Your task to perform on an android device: refresh tabs in the chrome app Image 0: 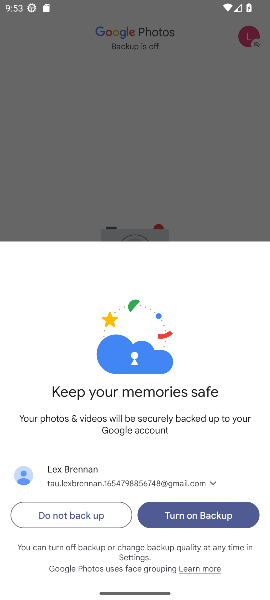
Step 0: press home button
Your task to perform on an android device: refresh tabs in the chrome app Image 1: 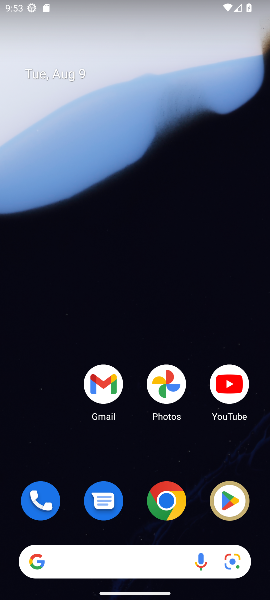
Step 1: click (160, 500)
Your task to perform on an android device: refresh tabs in the chrome app Image 2: 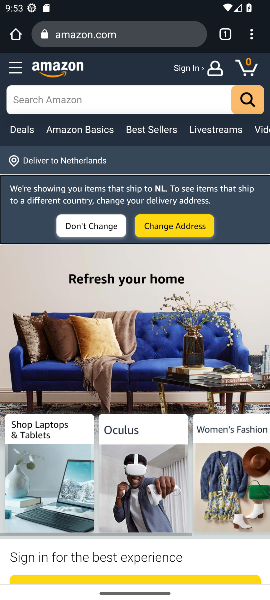
Step 2: click (252, 35)
Your task to perform on an android device: refresh tabs in the chrome app Image 3: 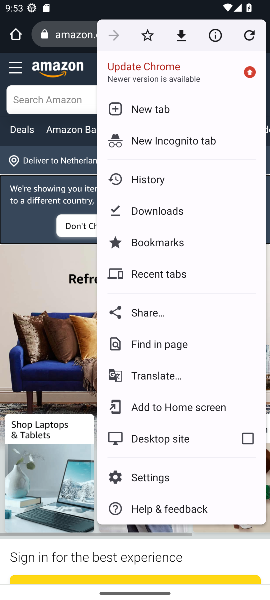
Step 3: click (250, 39)
Your task to perform on an android device: refresh tabs in the chrome app Image 4: 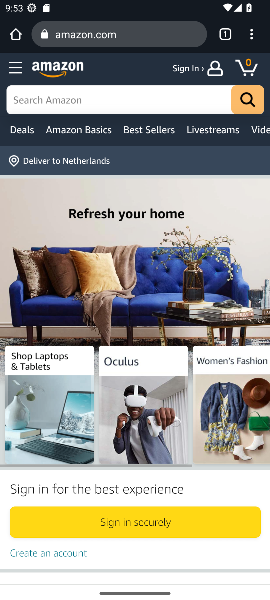
Step 4: task complete